Your task to perform on an android device: delete location history Image 0: 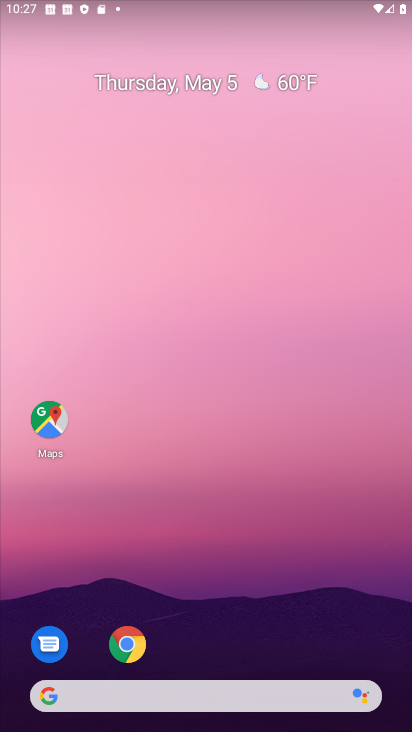
Step 0: drag from (190, 662) to (190, 230)
Your task to perform on an android device: delete location history Image 1: 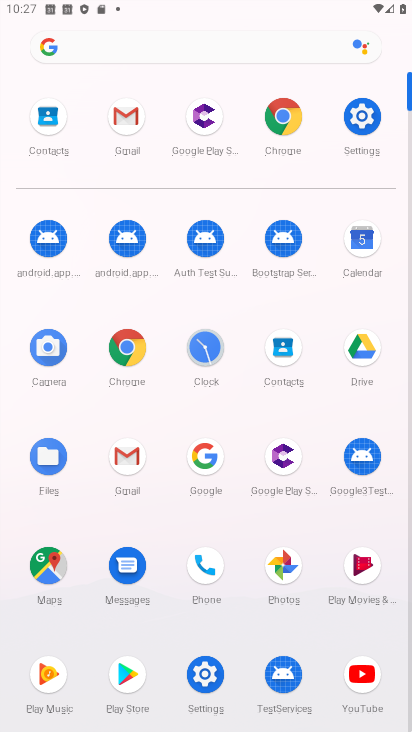
Step 1: click (360, 119)
Your task to perform on an android device: delete location history Image 2: 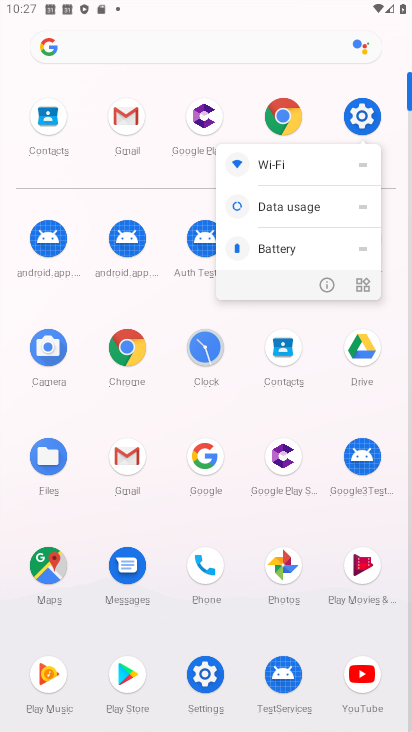
Step 2: click (321, 276)
Your task to perform on an android device: delete location history Image 3: 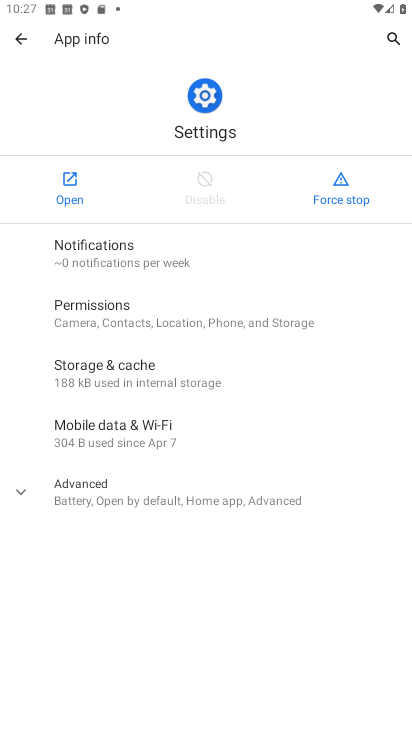
Step 3: click (84, 177)
Your task to perform on an android device: delete location history Image 4: 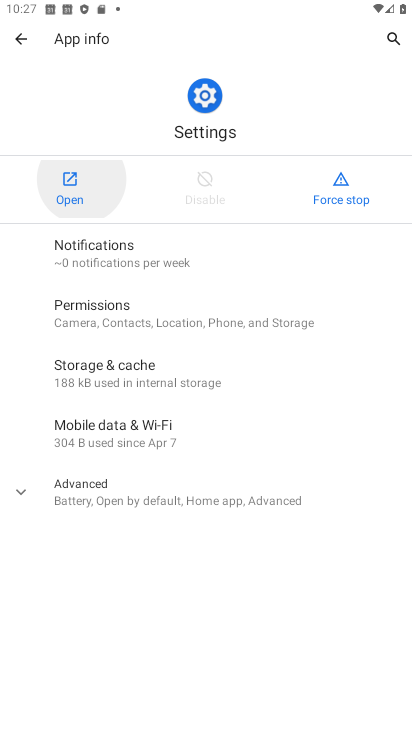
Step 4: click (69, 184)
Your task to perform on an android device: delete location history Image 5: 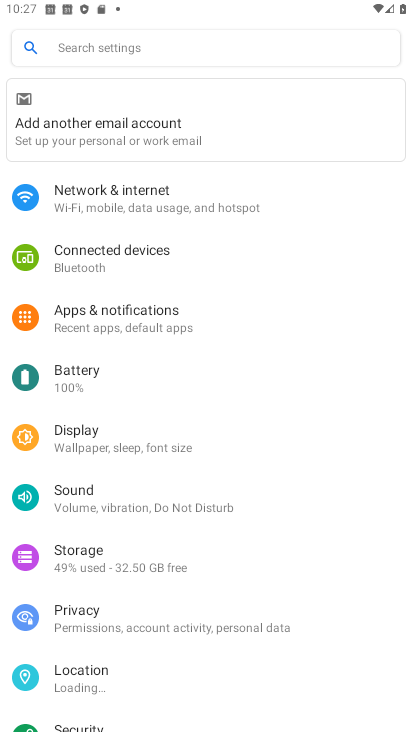
Step 5: drag from (169, 494) to (191, 207)
Your task to perform on an android device: delete location history Image 6: 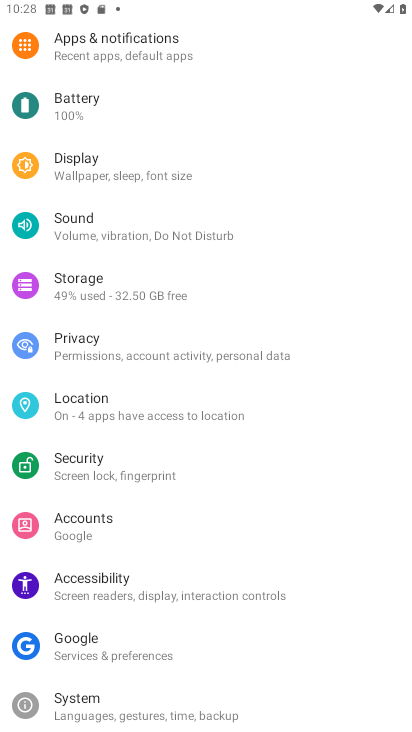
Step 6: drag from (147, 574) to (204, 174)
Your task to perform on an android device: delete location history Image 7: 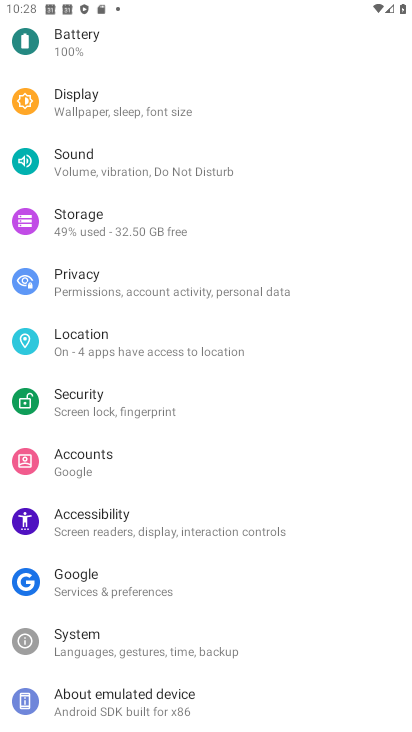
Step 7: click (111, 349)
Your task to perform on an android device: delete location history Image 8: 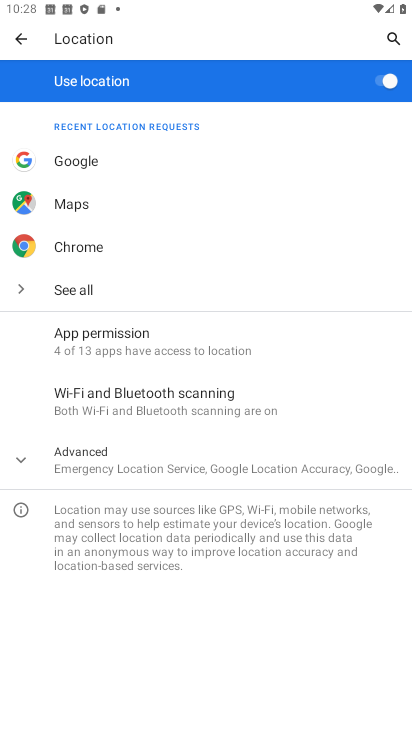
Step 8: click (159, 472)
Your task to perform on an android device: delete location history Image 9: 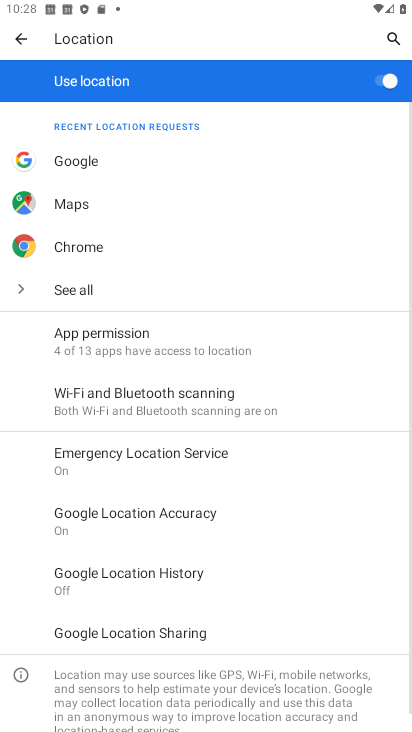
Step 9: click (131, 551)
Your task to perform on an android device: delete location history Image 10: 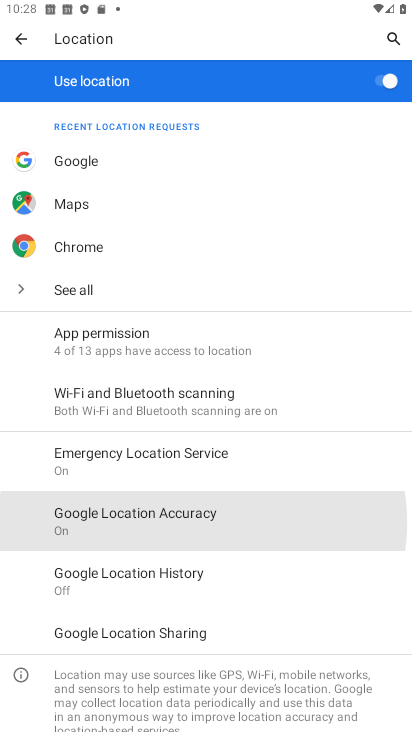
Step 10: click (126, 568)
Your task to perform on an android device: delete location history Image 11: 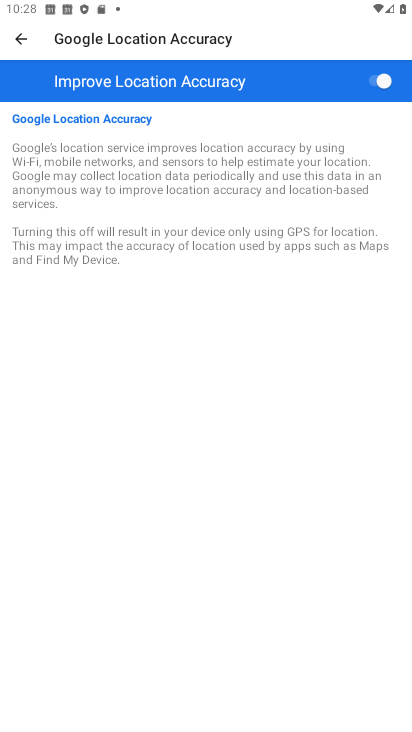
Step 11: press back button
Your task to perform on an android device: delete location history Image 12: 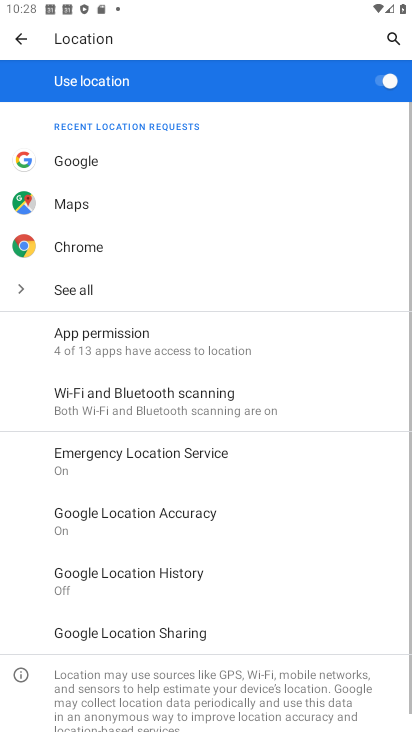
Step 12: click (102, 578)
Your task to perform on an android device: delete location history Image 13: 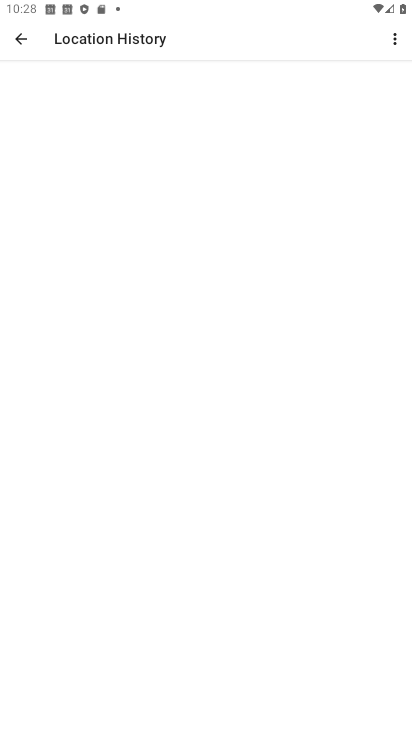
Step 13: drag from (168, 561) to (249, 243)
Your task to perform on an android device: delete location history Image 14: 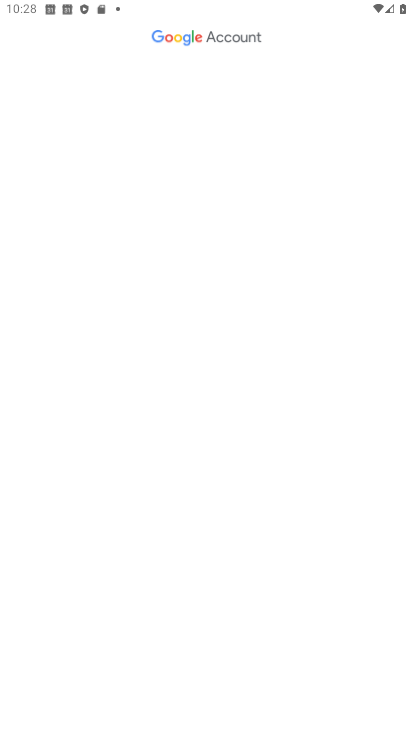
Step 14: drag from (242, 471) to (228, 199)
Your task to perform on an android device: delete location history Image 15: 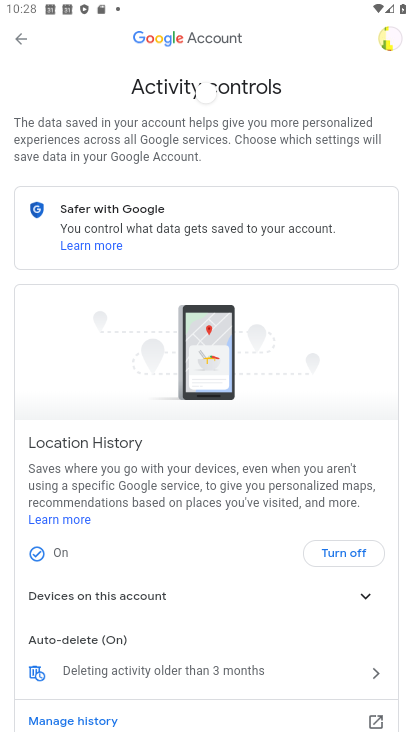
Step 15: drag from (160, 458) to (188, 6)
Your task to perform on an android device: delete location history Image 16: 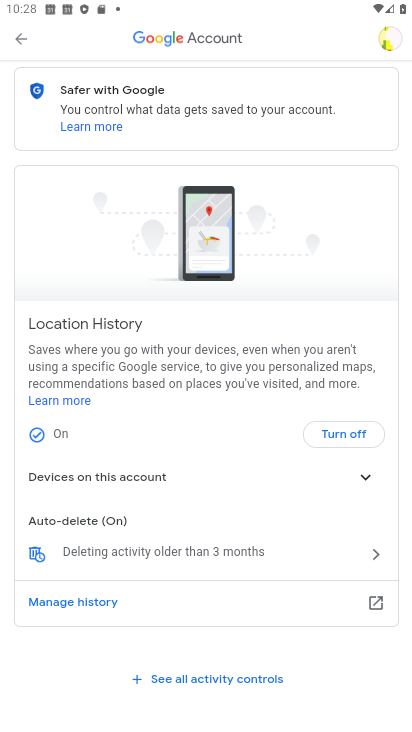
Step 16: drag from (146, 557) to (191, 254)
Your task to perform on an android device: delete location history Image 17: 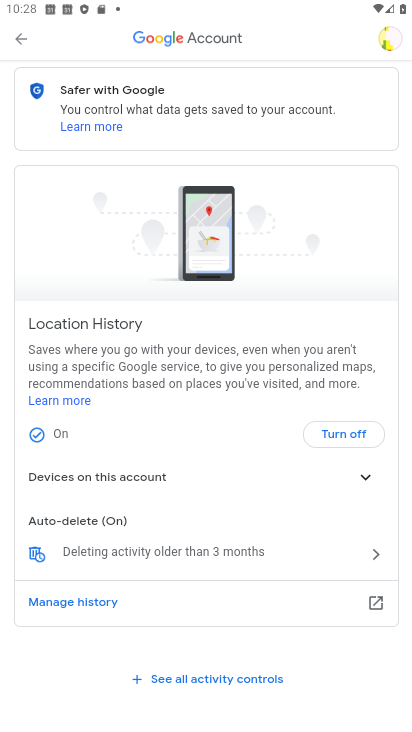
Step 17: drag from (161, 556) to (159, 217)
Your task to perform on an android device: delete location history Image 18: 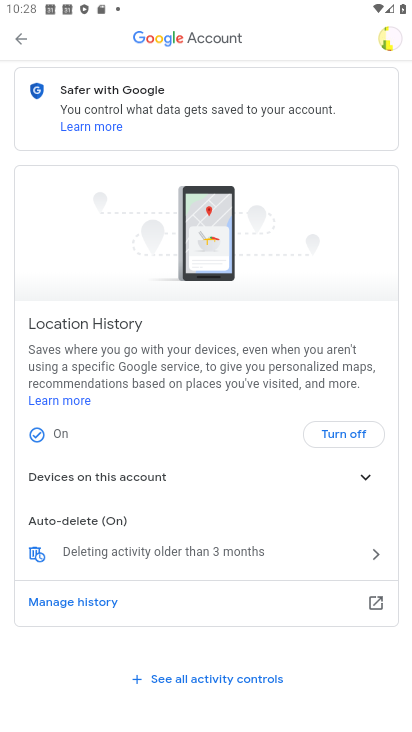
Step 18: click (350, 434)
Your task to perform on an android device: delete location history Image 19: 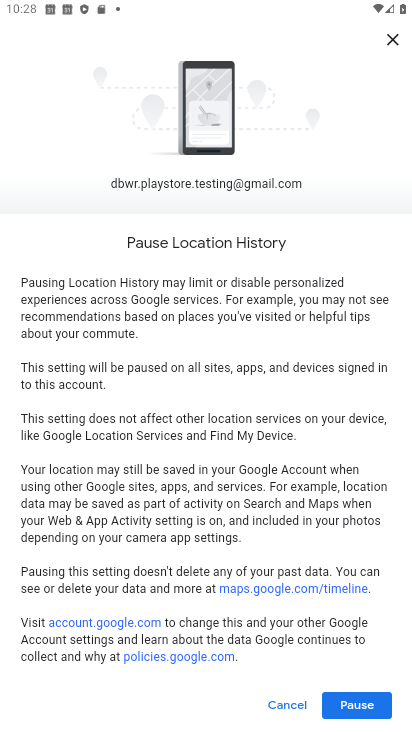
Step 19: drag from (240, 528) to (263, 118)
Your task to perform on an android device: delete location history Image 20: 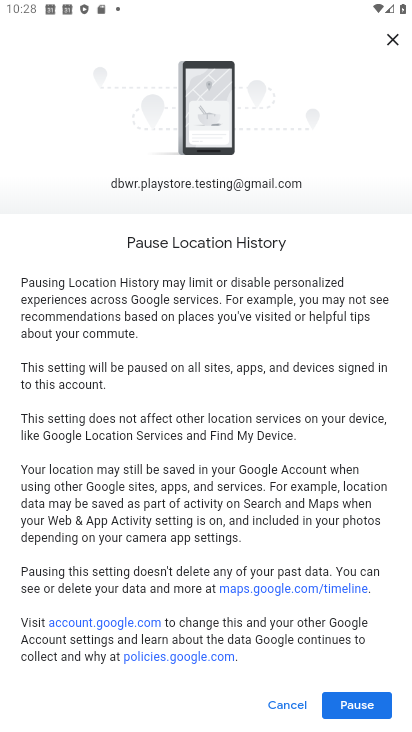
Step 20: click (382, 36)
Your task to perform on an android device: delete location history Image 21: 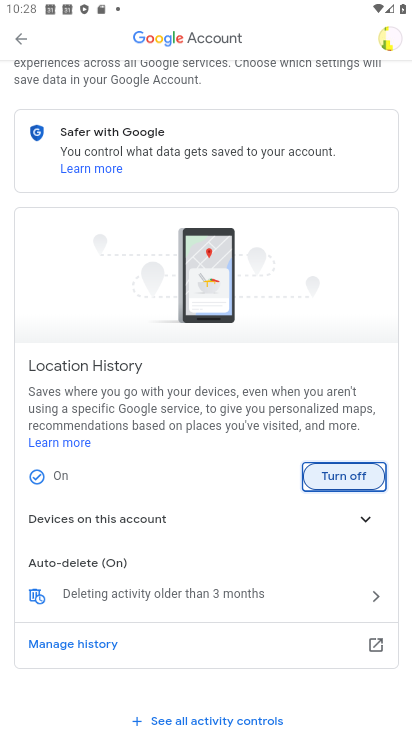
Step 21: drag from (177, 533) to (196, 308)
Your task to perform on an android device: delete location history Image 22: 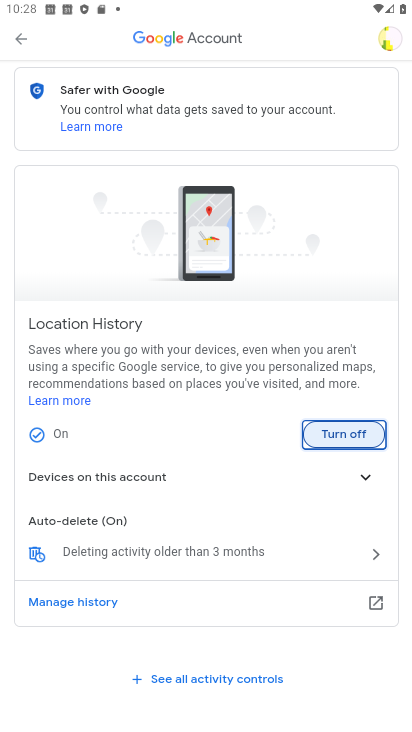
Step 22: click (62, 545)
Your task to perform on an android device: delete location history Image 23: 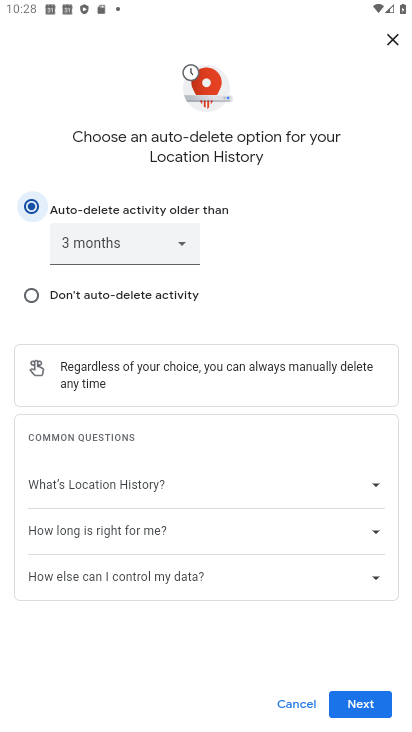
Step 23: drag from (259, 507) to (315, 243)
Your task to perform on an android device: delete location history Image 24: 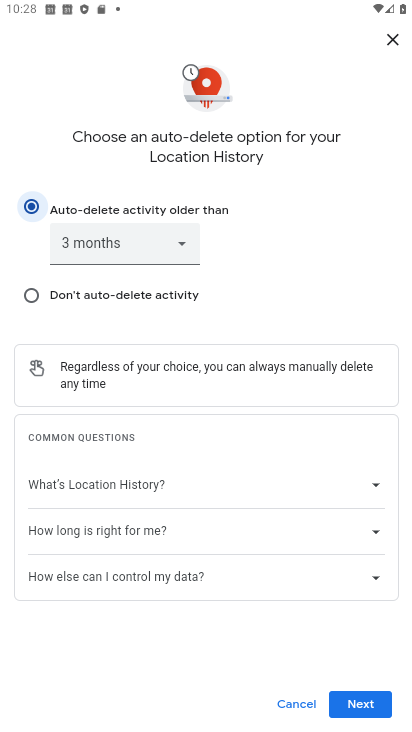
Step 24: click (353, 716)
Your task to perform on an android device: delete location history Image 25: 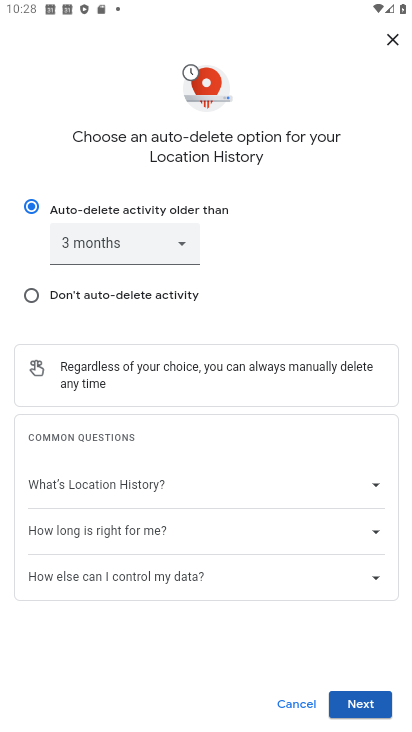
Step 25: click (351, 718)
Your task to perform on an android device: delete location history Image 26: 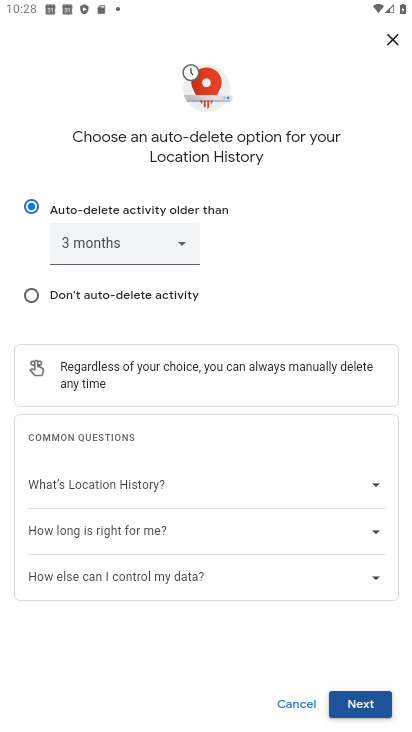
Step 26: click (350, 717)
Your task to perform on an android device: delete location history Image 27: 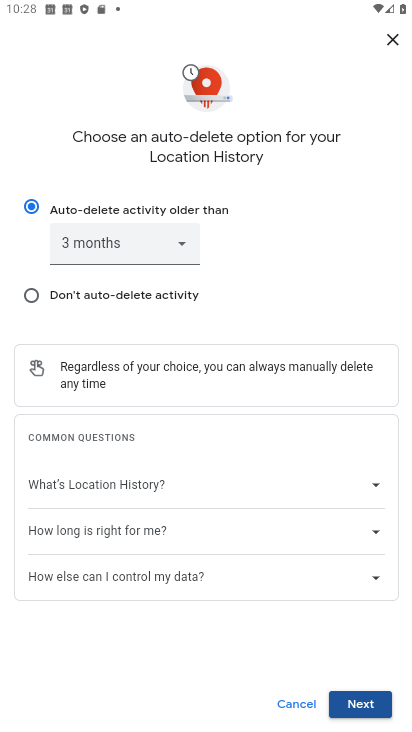
Step 27: click (359, 706)
Your task to perform on an android device: delete location history Image 28: 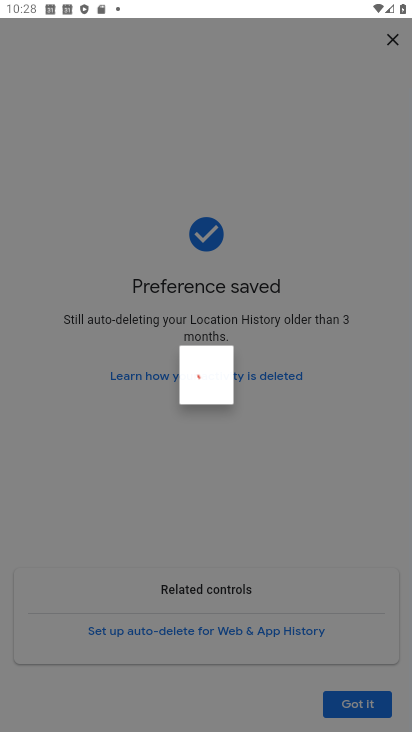
Step 28: click (355, 706)
Your task to perform on an android device: delete location history Image 29: 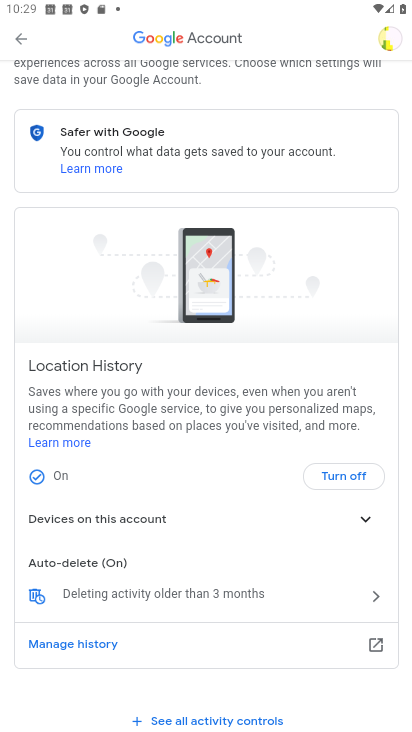
Step 29: drag from (203, 566) to (237, 223)
Your task to perform on an android device: delete location history Image 30: 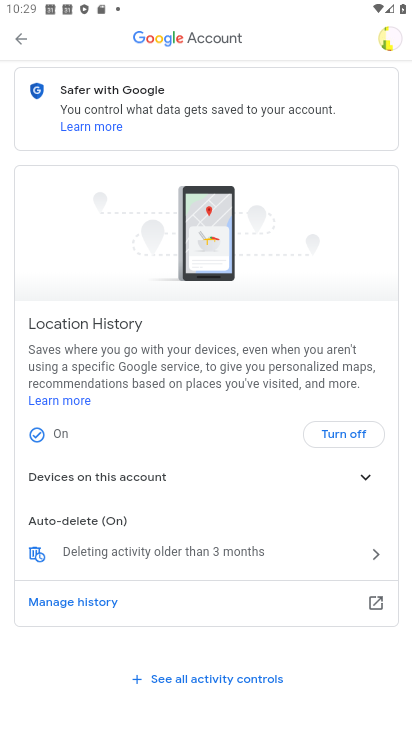
Step 30: click (40, 560)
Your task to perform on an android device: delete location history Image 31: 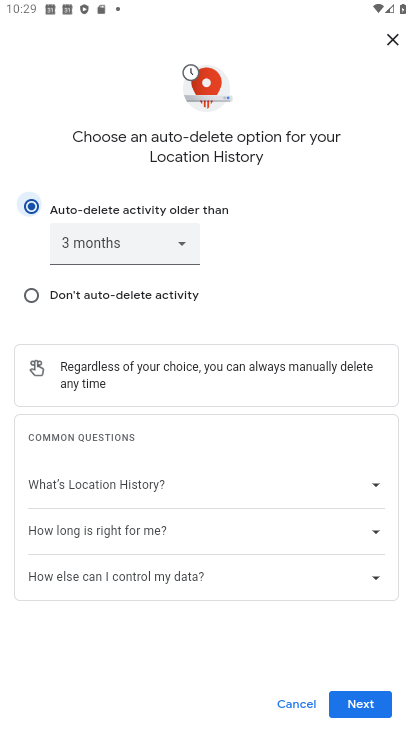
Step 31: drag from (206, 530) to (298, 162)
Your task to perform on an android device: delete location history Image 32: 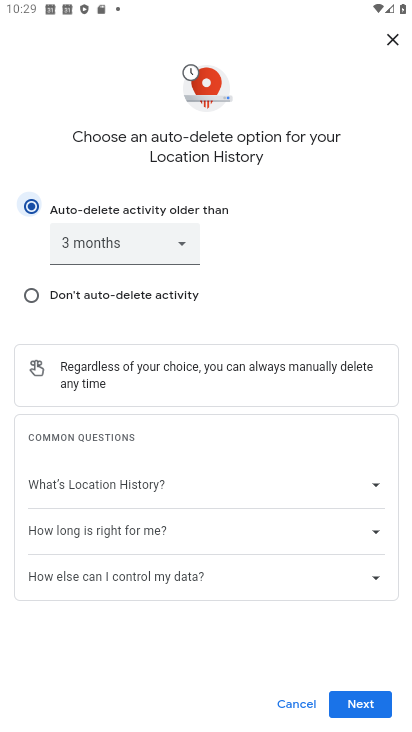
Step 32: drag from (203, 608) to (192, 269)
Your task to perform on an android device: delete location history Image 33: 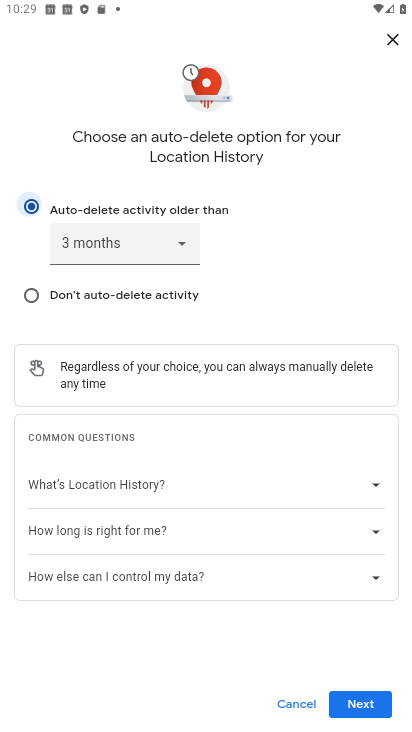
Step 33: drag from (169, 631) to (255, 204)
Your task to perform on an android device: delete location history Image 34: 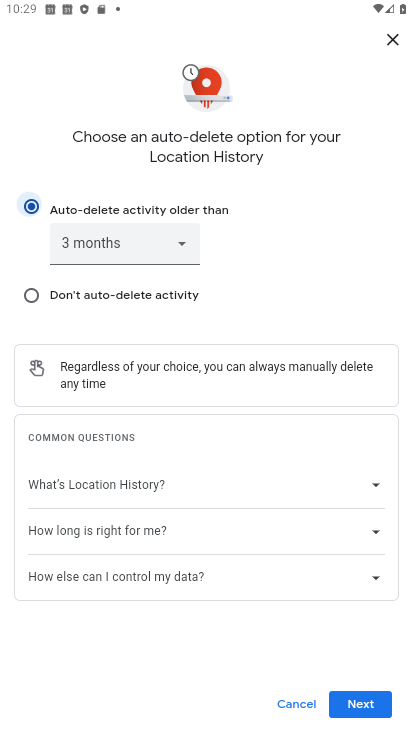
Step 34: drag from (185, 652) to (245, 239)
Your task to perform on an android device: delete location history Image 35: 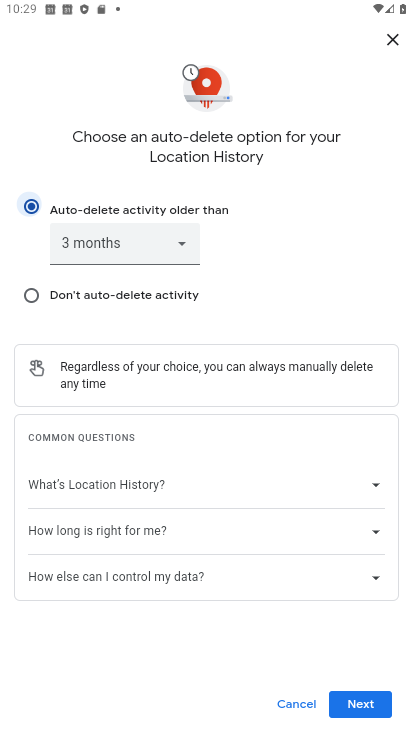
Step 35: drag from (239, 207) to (237, 730)
Your task to perform on an android device: delete location history Image 36: 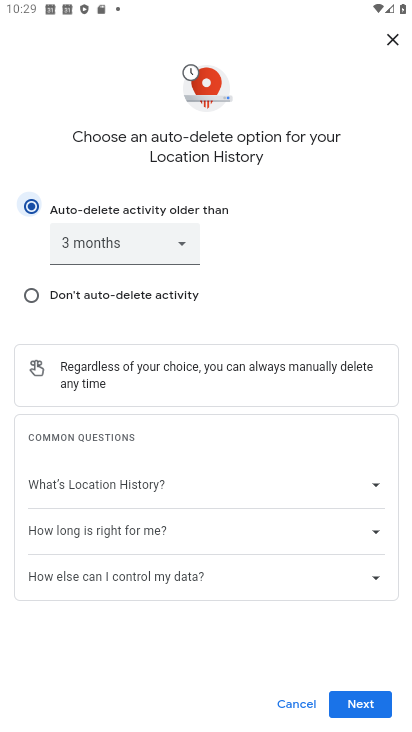
Step 36: drag from (242, 644) to (280, 268)
Your task to perform on an android device: delete location history Image 37: 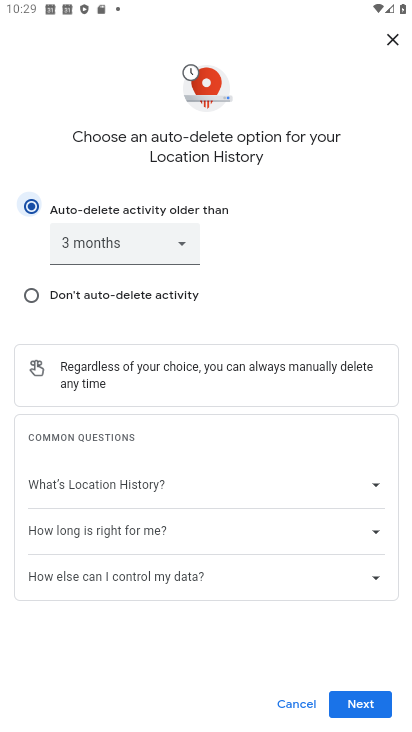
Step 37: click (345, 709)
Your task to perform on an android device: delete location history Image 38: 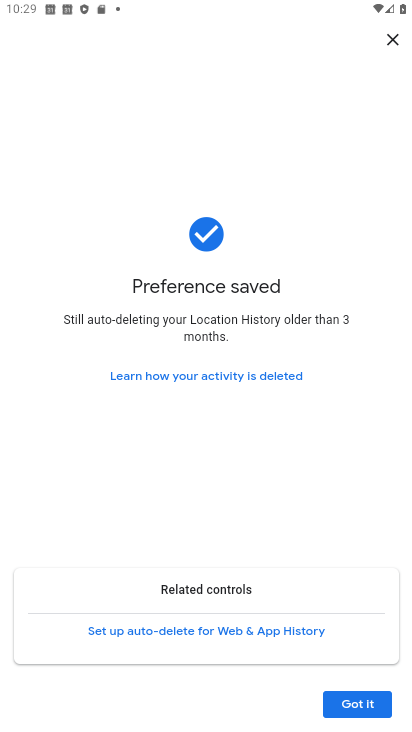
Step 38: click (346, 709)
Your task to perform on an android device: delete location history Image 39: 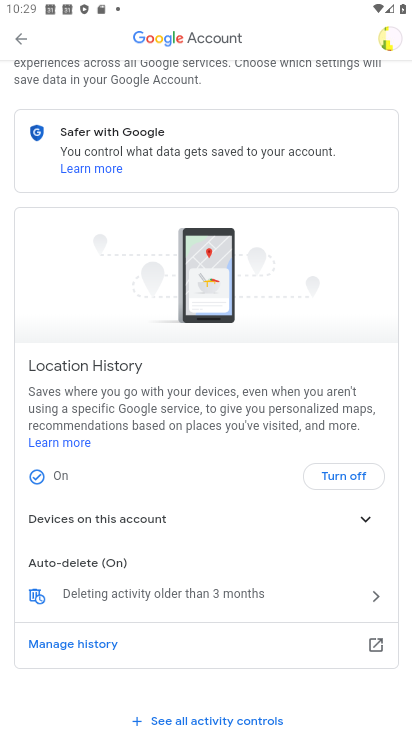
Step 39: task complete